Your task to perform on an android device: Set an alarm for 4pm Image 0: 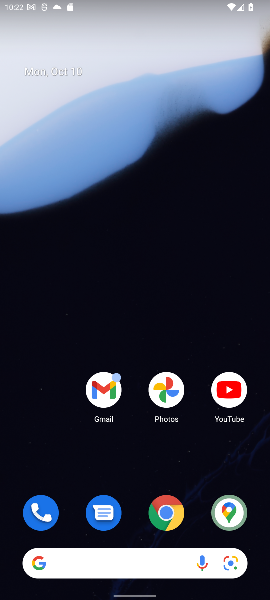
Step 0: drag from (132, 450) to (119, 78)
Your task to perform on an android device: Set an alarm for 4pm Image 1: 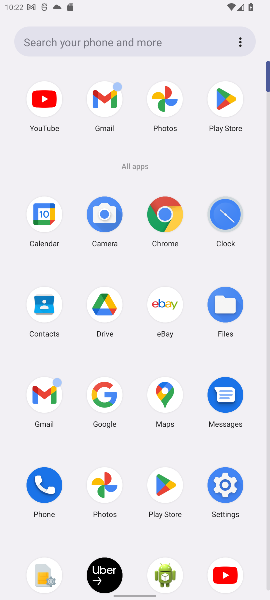
Step 1: click (216, 213)
Your task to perform on an android device: Set an alarm for 4pm Image 2: 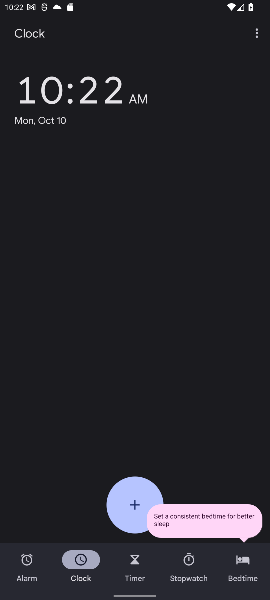
Step 2: click (22, 570)
Your task to perform on an android device: Set an alarm for 4pm Image 3: 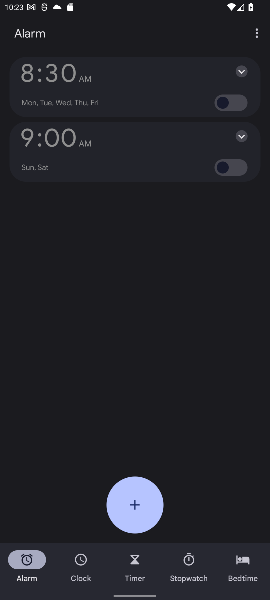
Step 3: click (139, 503)
Your task to perform on an android device: Set an alarm for 4pm Image 4: 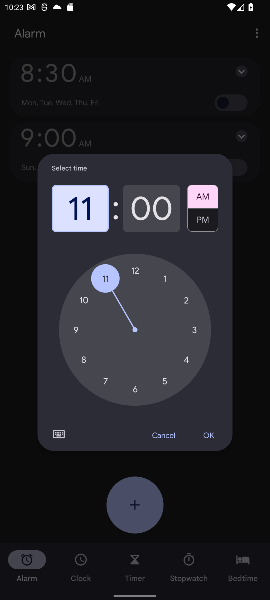
Step 4: click (187, 364)
Your task to perform on an android device: Set an alarm for 4pm Image 5: 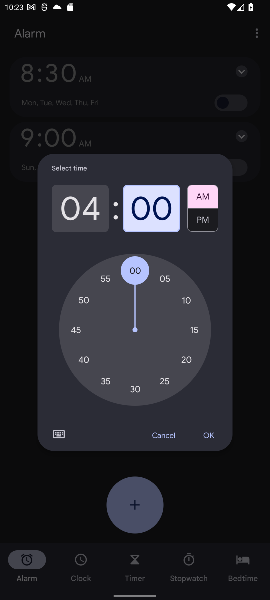
Step 5: click (210, 440)
Your task to perform on an android device: Set an alarm for 4pm Image 6: 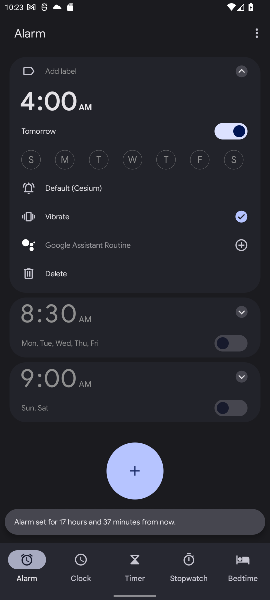
Step 6: task complete